Your task to perform on an android device: turn off location Image 0: 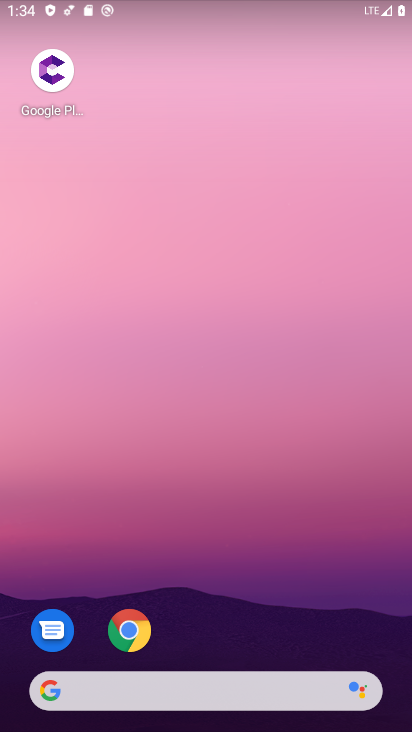
Step 0: drag from (277, 412) to (230, 33)
Your task to perform on an android device: turn off location Image 1: 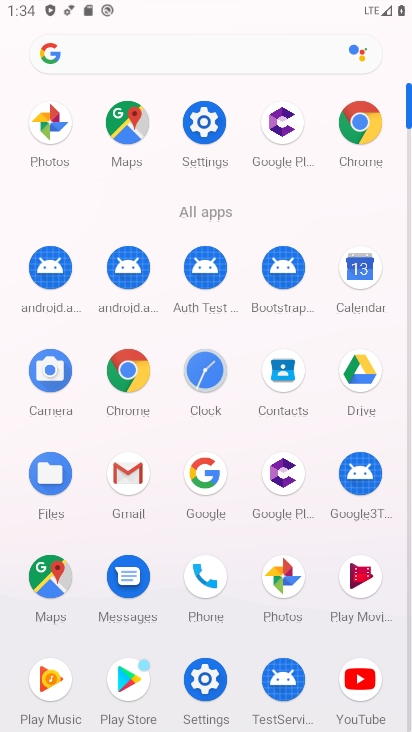
Step 1: click (210, 124)
Your task to perform on an android device: turn off location Image 2: 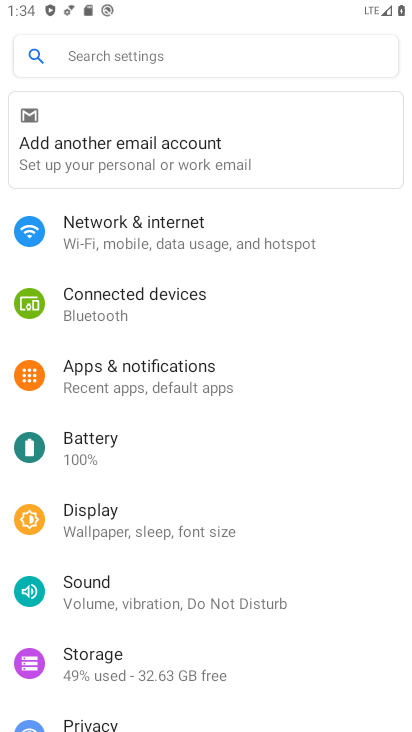
Step 2: drag from (166, 646) to (234, 213)
Your task to perform on an android device: turn off location Image 3: 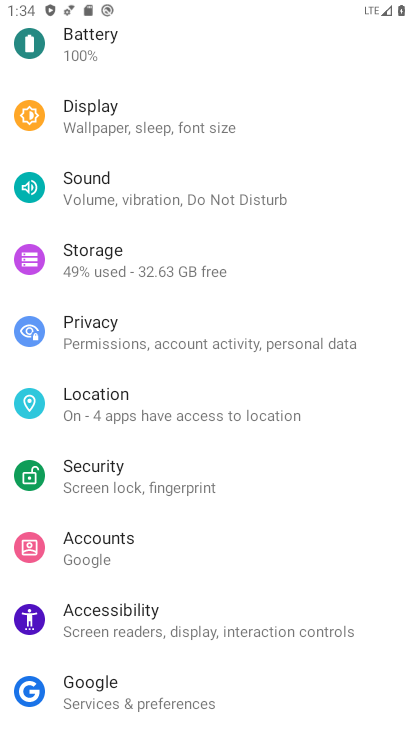
Step 3: click (121, 406)
Your task to perform on an android device: turn off location Image 4: 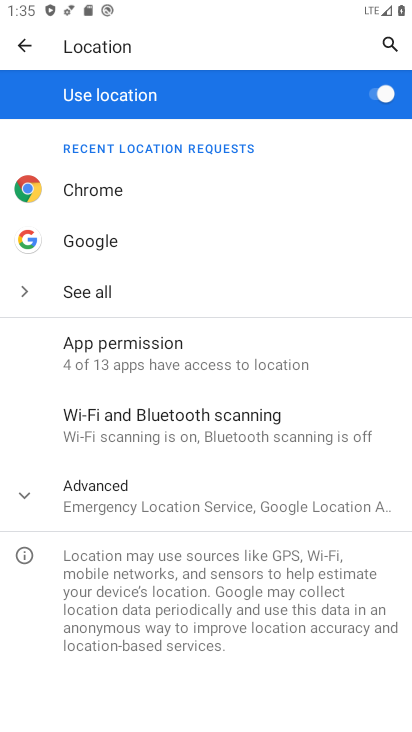
Step 4: click (377, 87)
Your task to perform on an android device: turn off location Image 5: 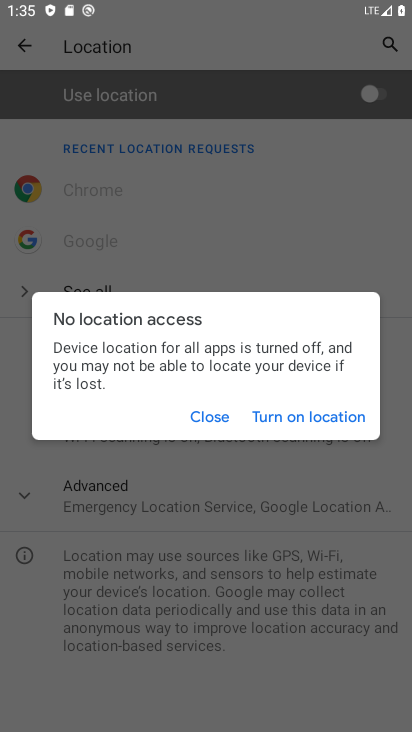
Step 5: task complete